Your task to perform on an android device: What's the weather going to be tomorrow? Image 0: 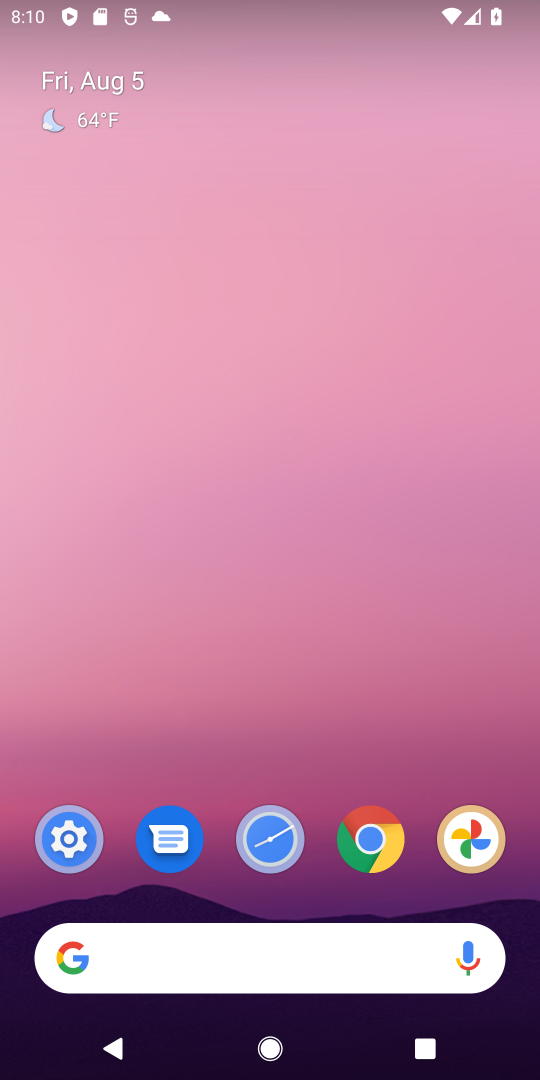
Step 0: drag from (315, 678) to (313, 139)
Your task to perform on an android device: What's the weather going to be tomorrow? Image 1: 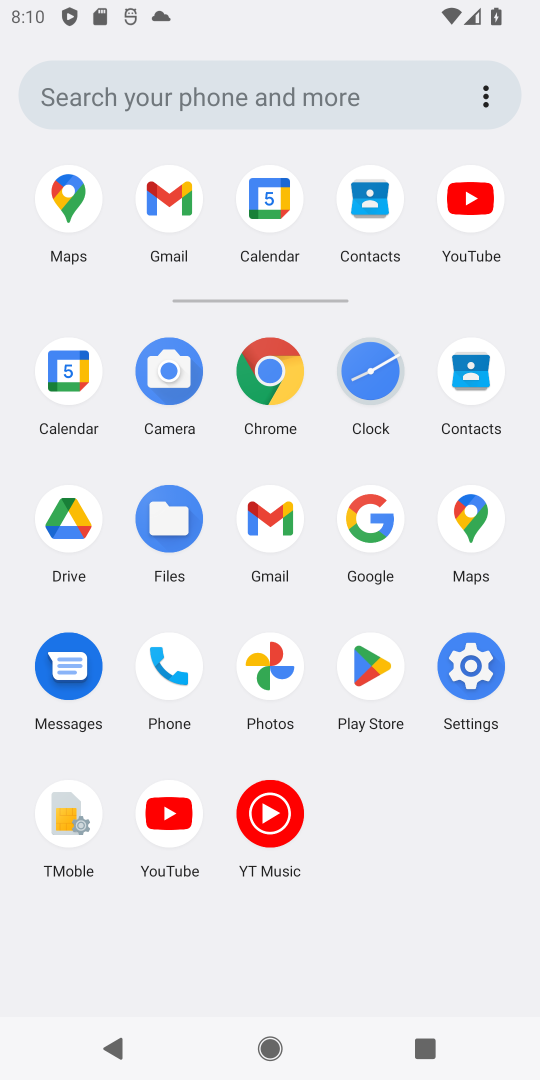
Step 1: click (394, 520)
Your task to perform on an android device: What's the weather going to be tomorrow? Image 2: 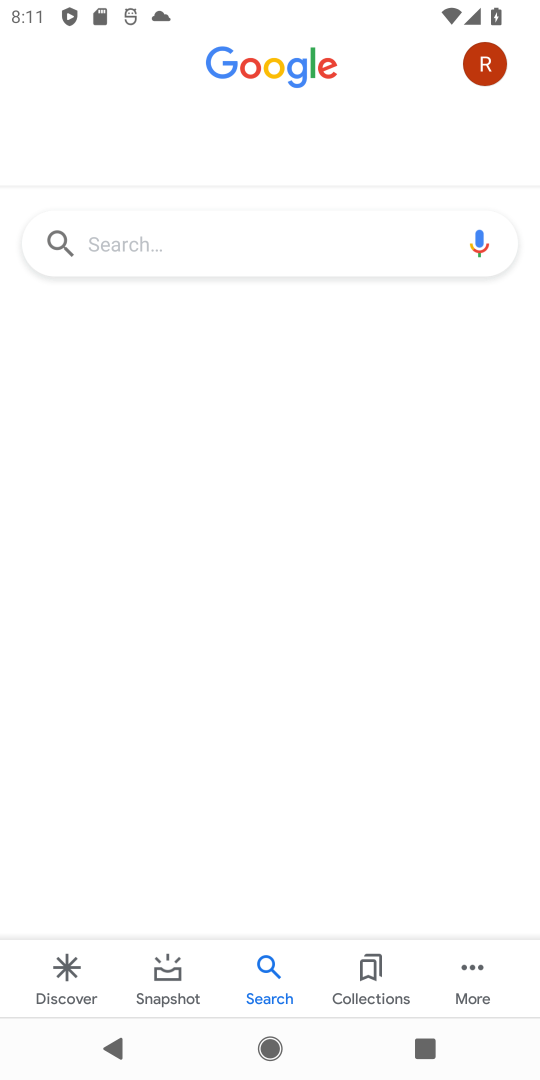
Step 2: click (281, 227)
Your task to perform on an android device: What's the weather going to be tomorrow? Image 3: 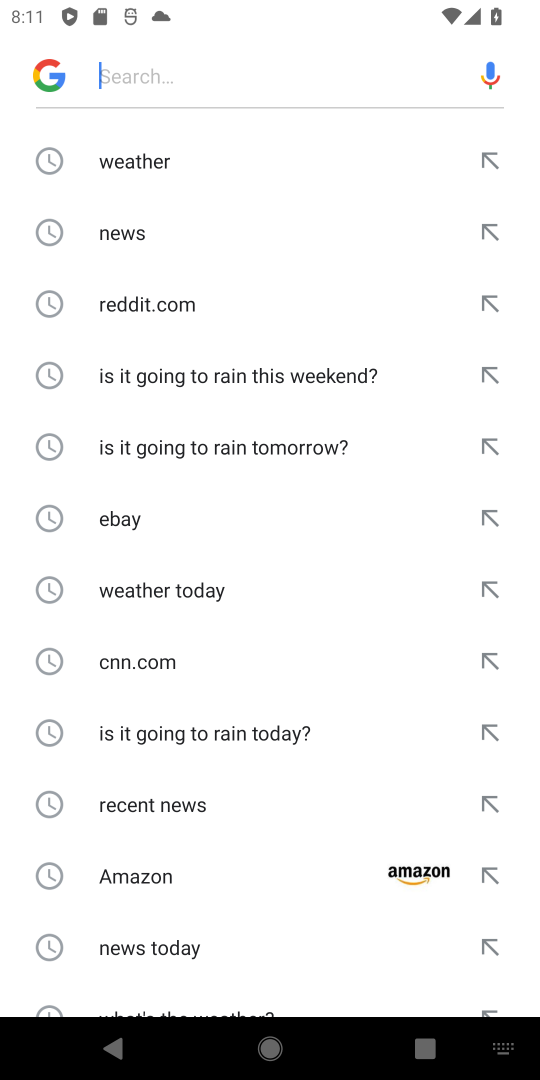
Step 3: click (141, 154)
Your task to perform on an android device: What's the weather going to be tomorrow? Image 4: 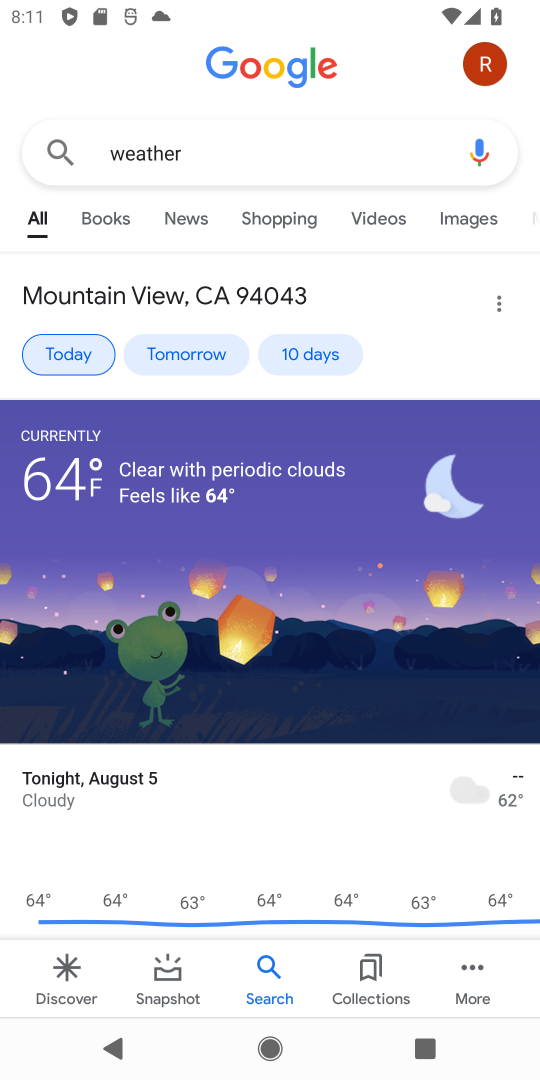
Step 4: click (176, 360)
Your task to perform on an android device: What's the weather going to be tomorrow? Image 5: 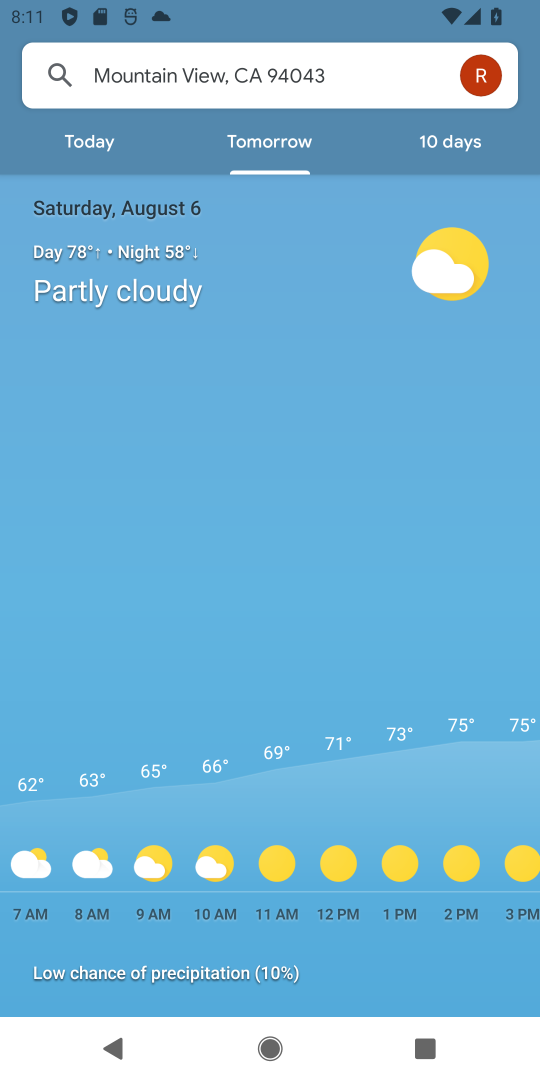
Step 5: task complete